Your task to perform on an android device: Open the Play Movies app and select the watchlist tab. Image 0: 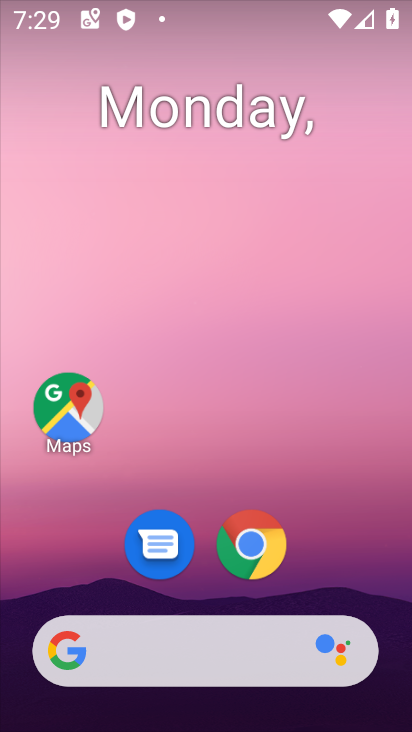
Step 0: drag from (354, 518) to (257, 70)
Your task to perform on an android device: Open the Play Movies app and select the watchlist tab. Image 1: 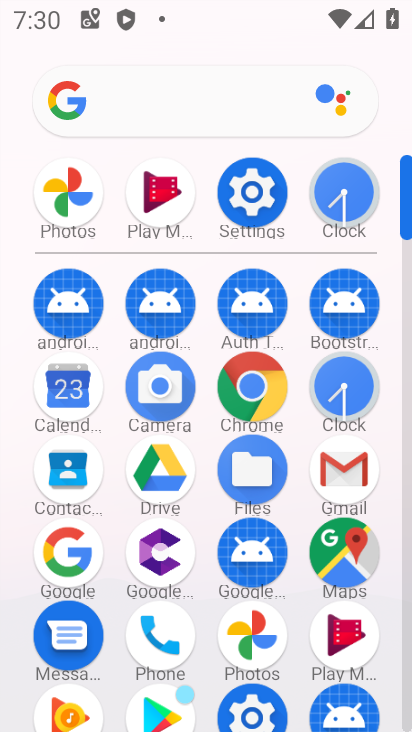
Step 1: click (348, 628)
Your task to perform on an android device: Open the Play Movies app and select the watchlist tab. Image 2: 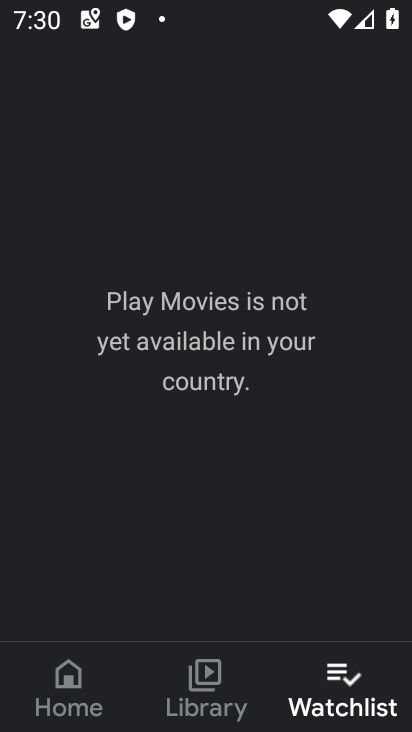
Step 2: task complete